Your task to perform on an android device: Show me productivity apps on the Play Store Image 0: 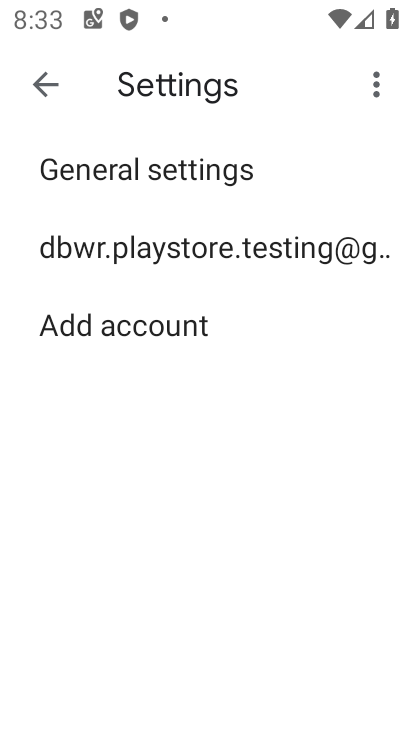
Step 0: press back button
Your task to perform on an android device: Show me productivity apps on the Play Store Image 1: 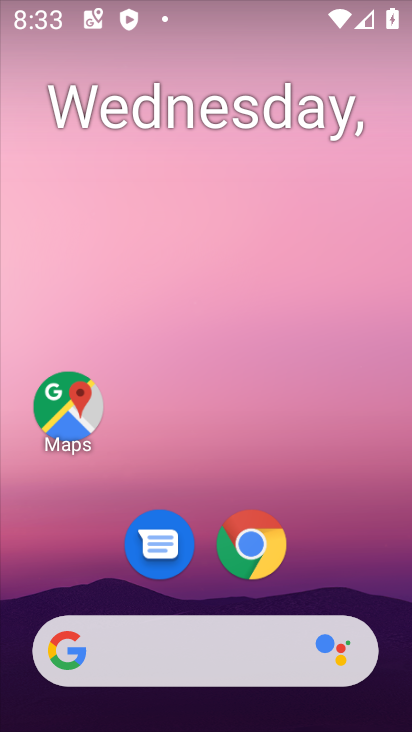
Step 1: drag from (204, 570) to (290, 41)
Your task to perform on an android device: Show me productivity apps on the Play Store Image 2: 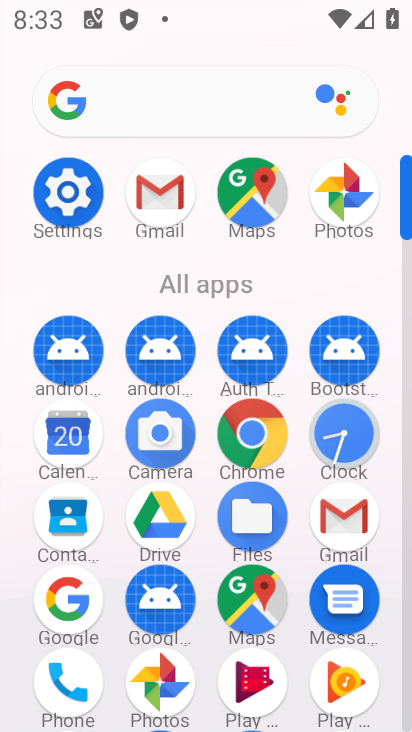
Step 2: drag from (235, 585) to (287, 127)
Your task to perform on an android device: Show me productivity apps on the Play Store Image 3: 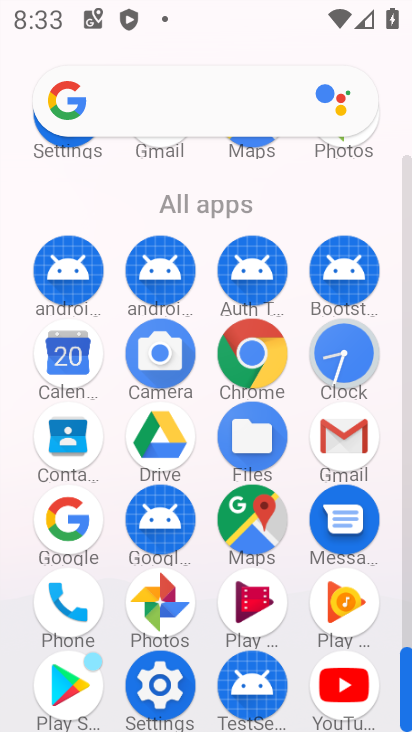
Step 3: click (83, 699)
Your task to perform on an android device: Show me productivity apps on the Play Store Image 4: 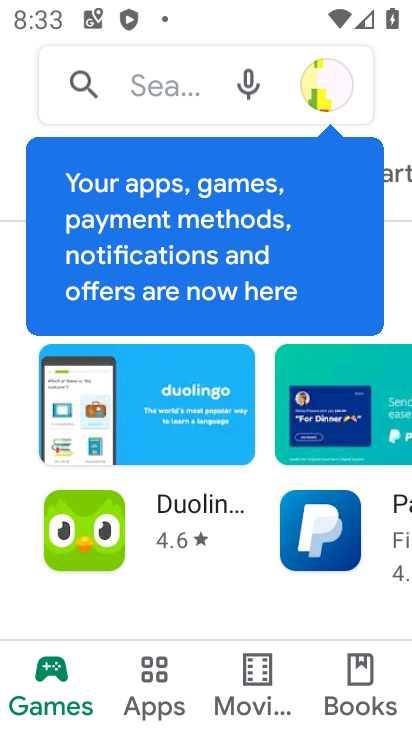
Step 4: click (169, 677)
Your task to perform on an android device: Show me productivity apps on the Play Store Image 5: 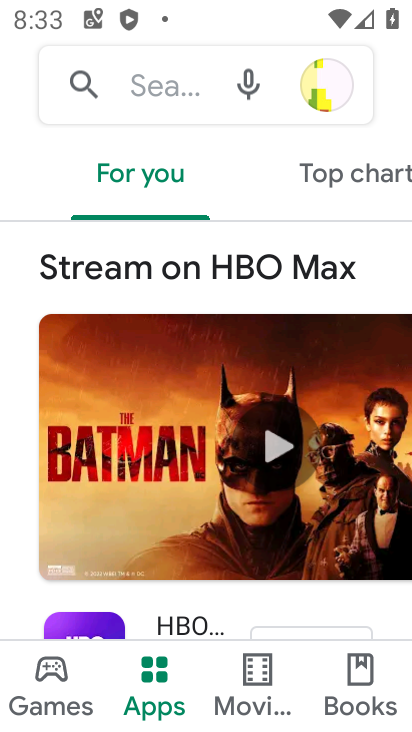
Step 5: drag from (347, 175) to (47, 179)
Your task to perform on an android device: Show me productivity apps on the Play Store Image 6: 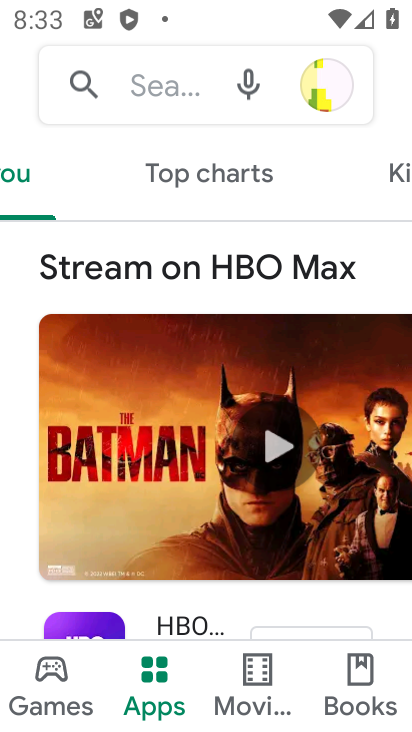
Step 6: drag from (323, 165) to (109, 169)
Your task to perform on an android device: Show me productivity apps on the Play Store Image 7: 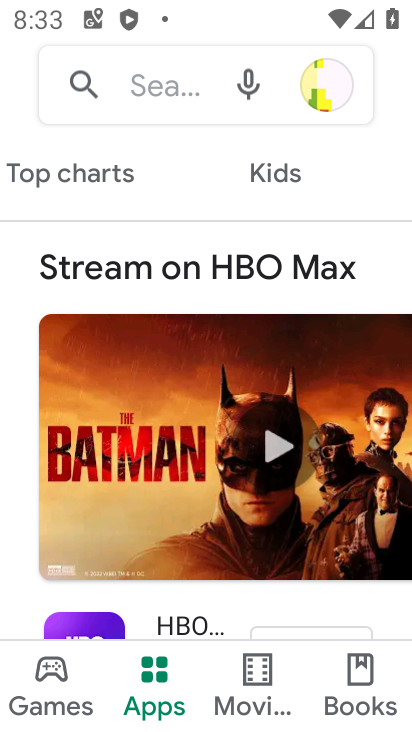
Step 7: drag from (291, 186) to (66, 176)
Your task to perform on an android device: Show me productivity apps on the Play Store Image 8: 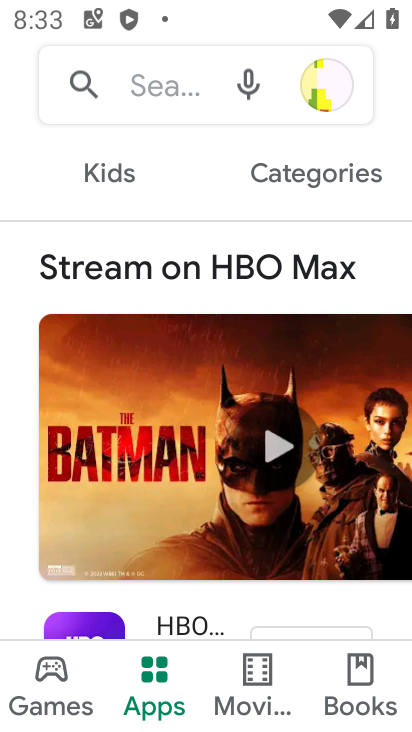
Step 8: drag from (201, 600) to (322, 55)
Your task to perform on an android device: Show me productivity apps on the Play Store Image 9: 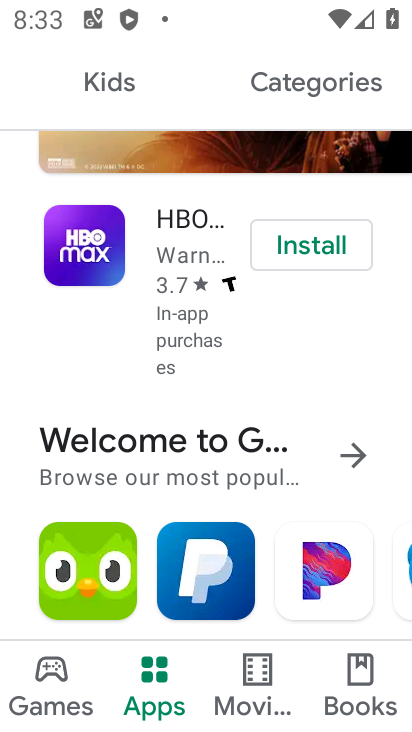
Step 9: drag from (268, 479) to (352, 58)
Your task to perform on an android device: Show me productivity apps on the Play Store Image 10: 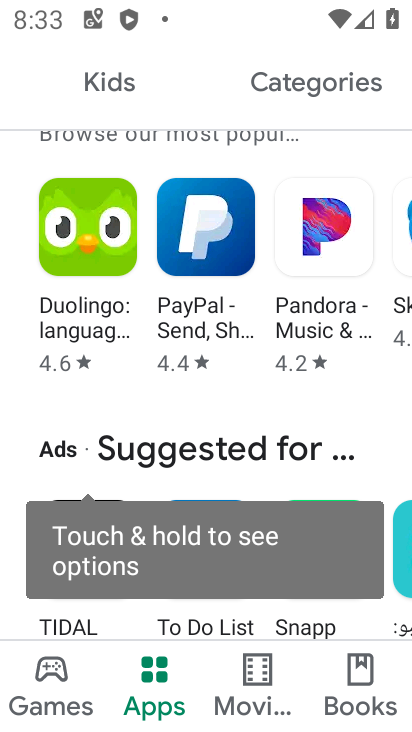
Step 10: drag from (223, 228) to (247, 437)
Your task to perform on an android device: Show me productivity apps on the Play Store Image 11: 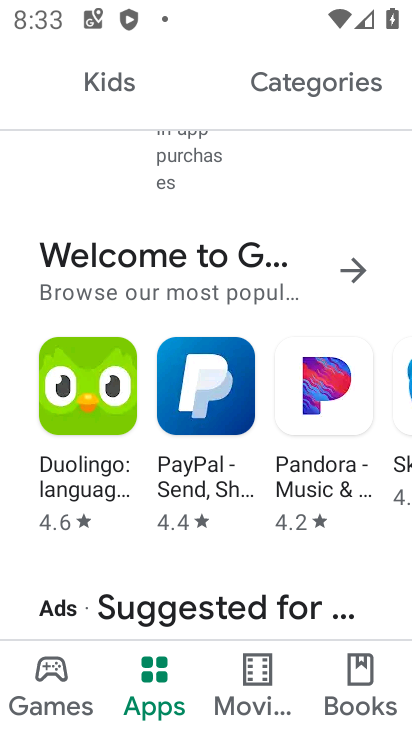
Step 11: click (347, 270)
Your task to perform on an android device: Show me productivity apps on the Play Store Image 12: 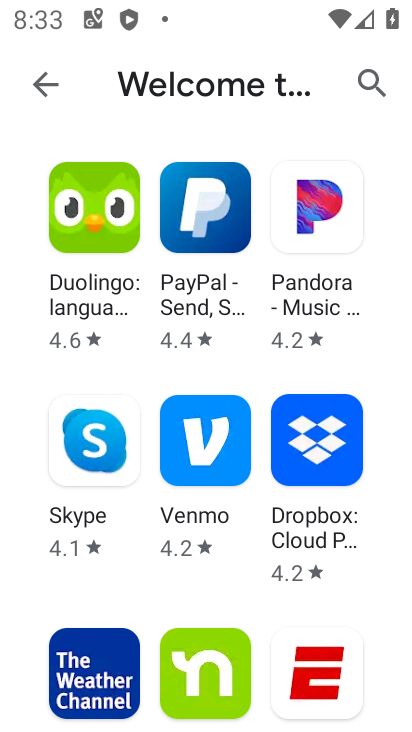
Step 12: click (47, 75)
Your task to perform on an android device: Show me productivity apps on the Play Store Image 13: 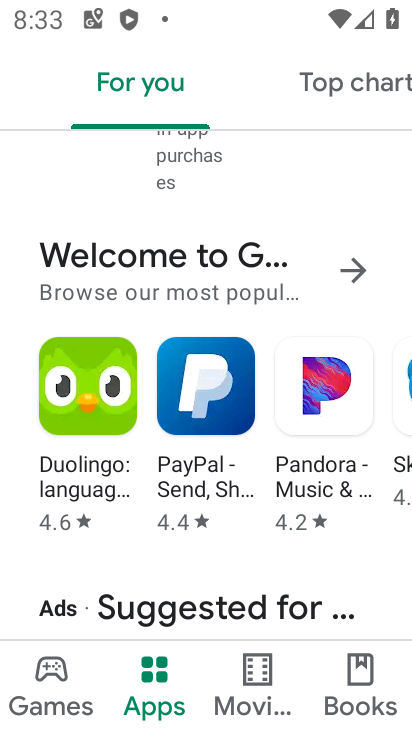
Step 13: task complete